Your task to perform on an android device: Go to accessibility settings Image 0: 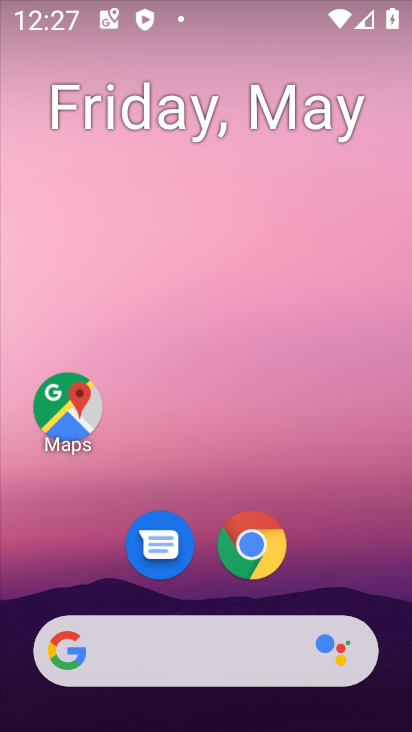
Step 0: drag from (296, 593) to (337, 342)
Your task to perform on an android device: Go to accessibility settings Image 1: 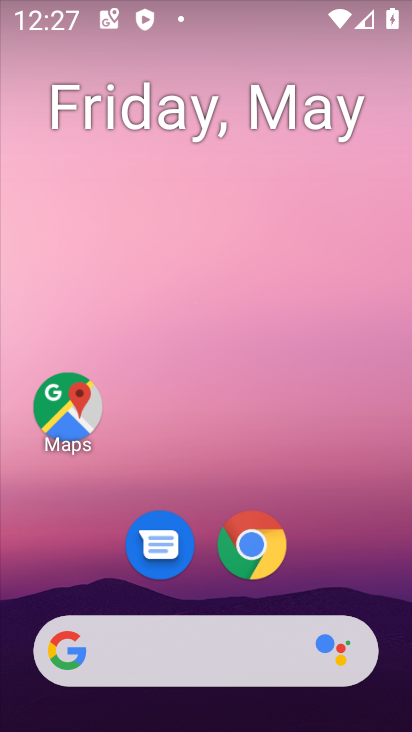
Step 1: drag from (228, 529) to (241, 203)
Your task to perform on an android device: Go to accessibility settings Image 2: 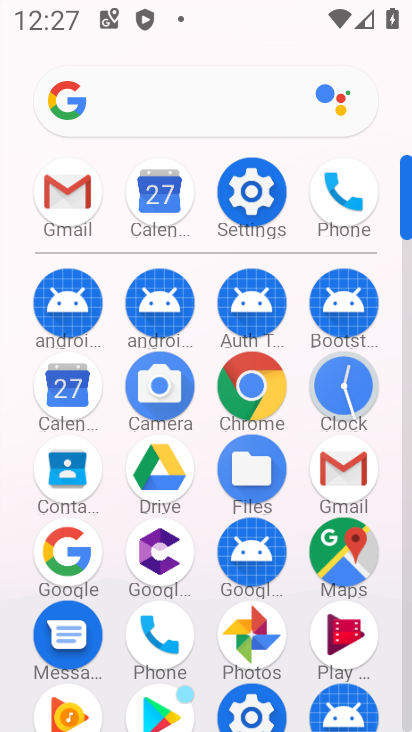
Step 2: click (235, 183)
Your task to perform on an android device: Go to accessibility settings Image 3: 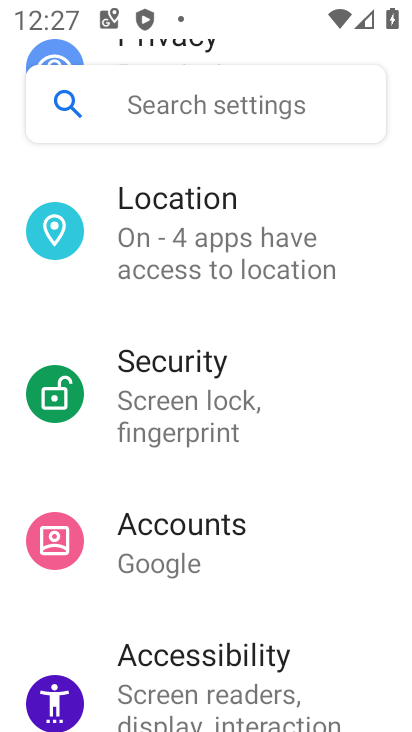
Step 3: click (187, 655)
Your task to perform on an android device: Go to accessibility settings Image 4: 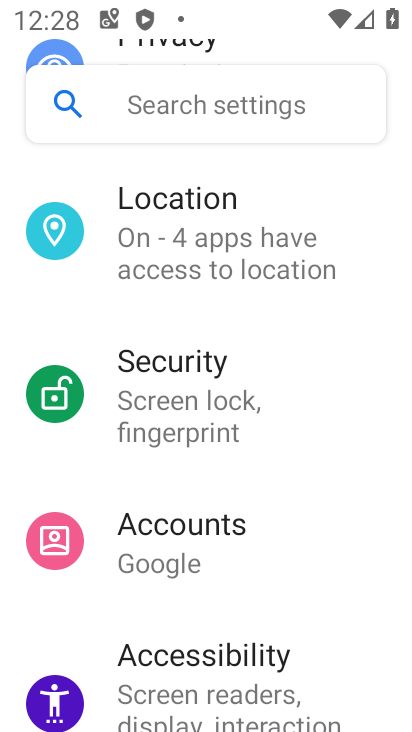
Step 4: click (162, 661)
Your task to perform on an android device: Go to accessibility settings Image 5: 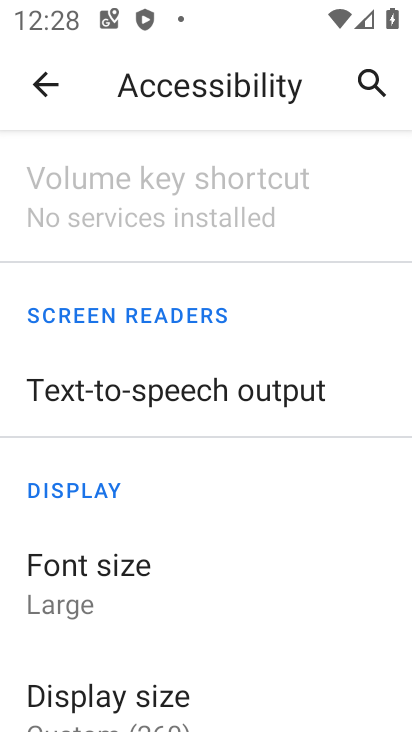
Step 5: task complete